Your task to perform on an android device: create a new album in the google photos Image 0: 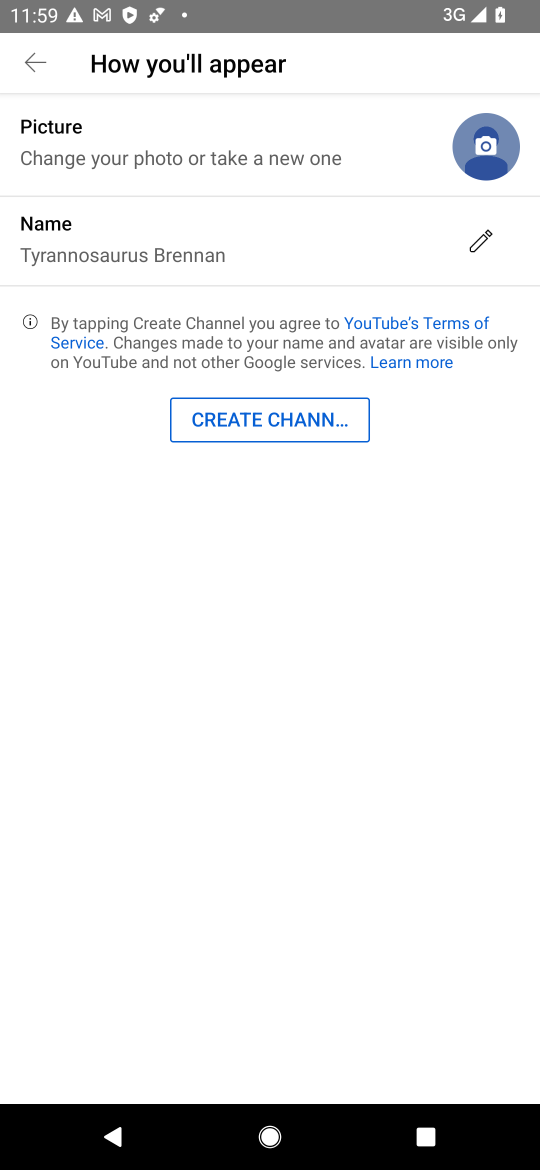
Step 0: press home button
Your task to perform on an android device: create a new album in the google photos Image 1: 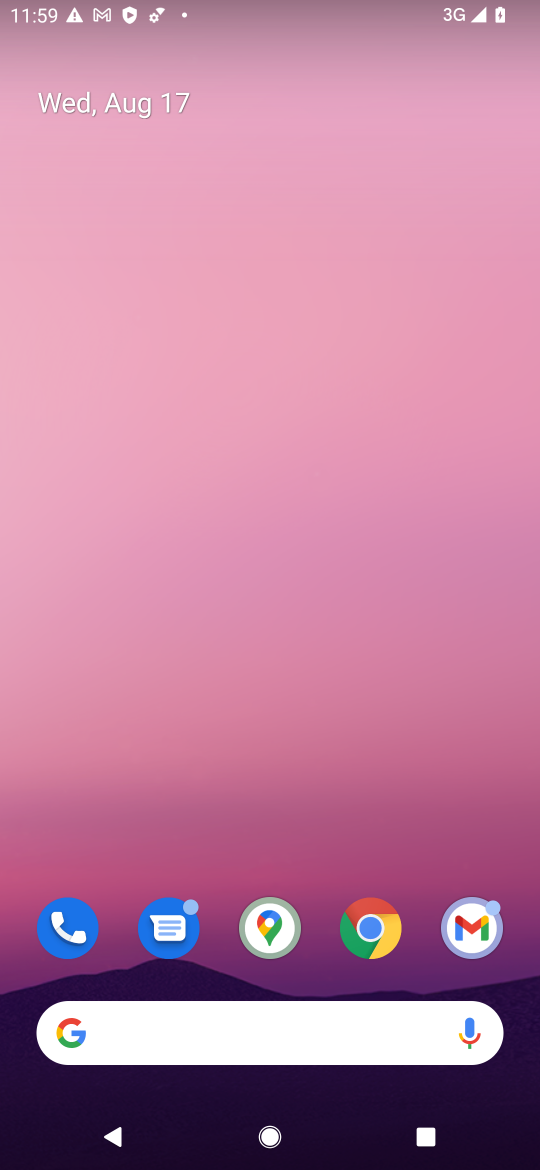
Step 1: drag from (332, 825) to (342, 229)
Your task to perform on an android device: create a new album in the google photos Image 2: 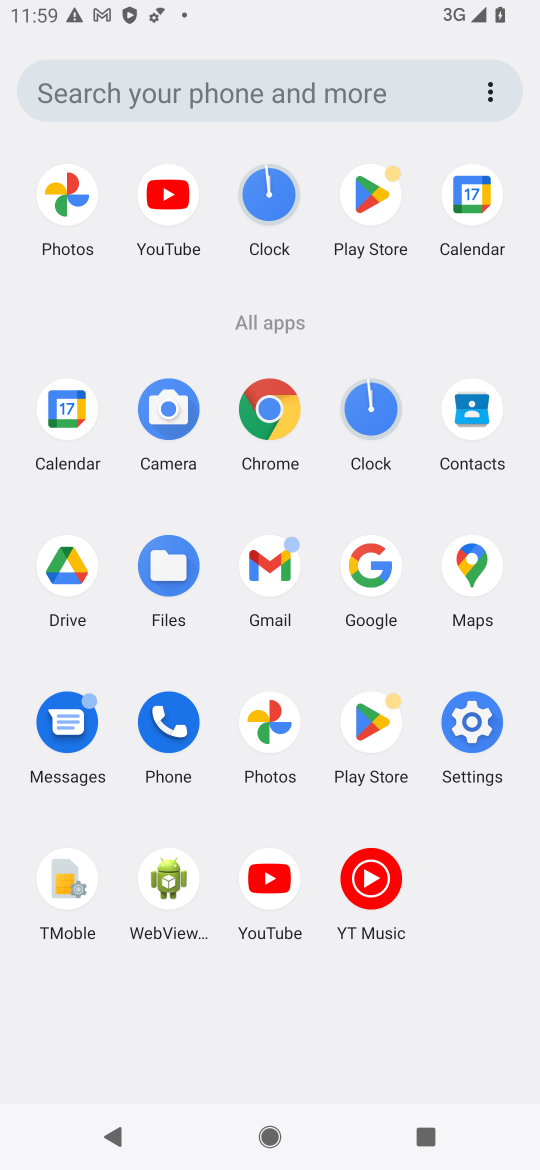
Step 2: click (100, 208)
Your task to perform on an android device: create a new album in the google photos Image 3: 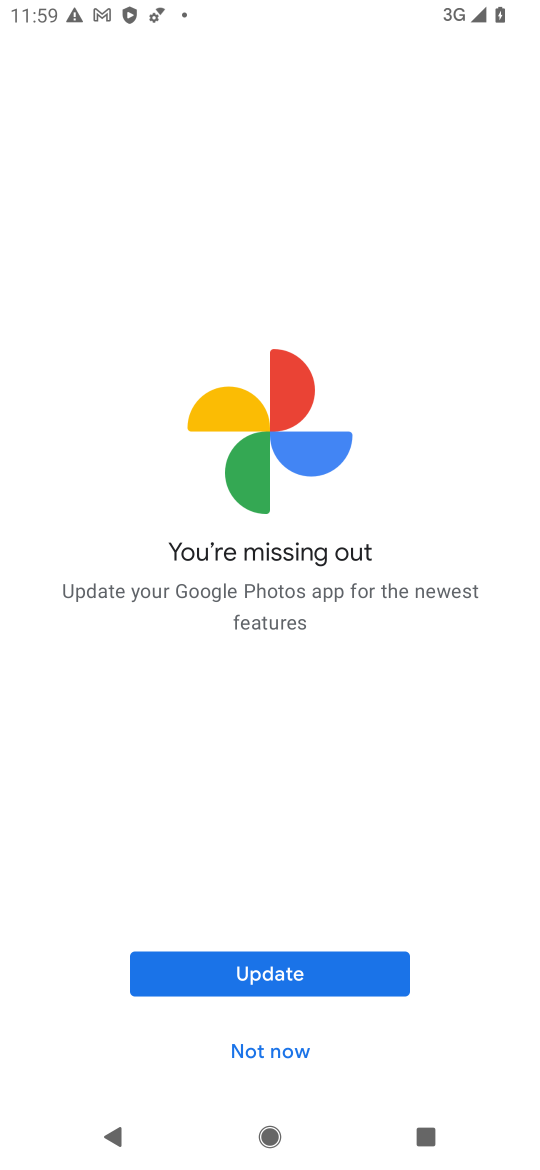
Step 3: click (158, 1044)
Your task to perform on an android device: create a new album in the google photos Image 4: 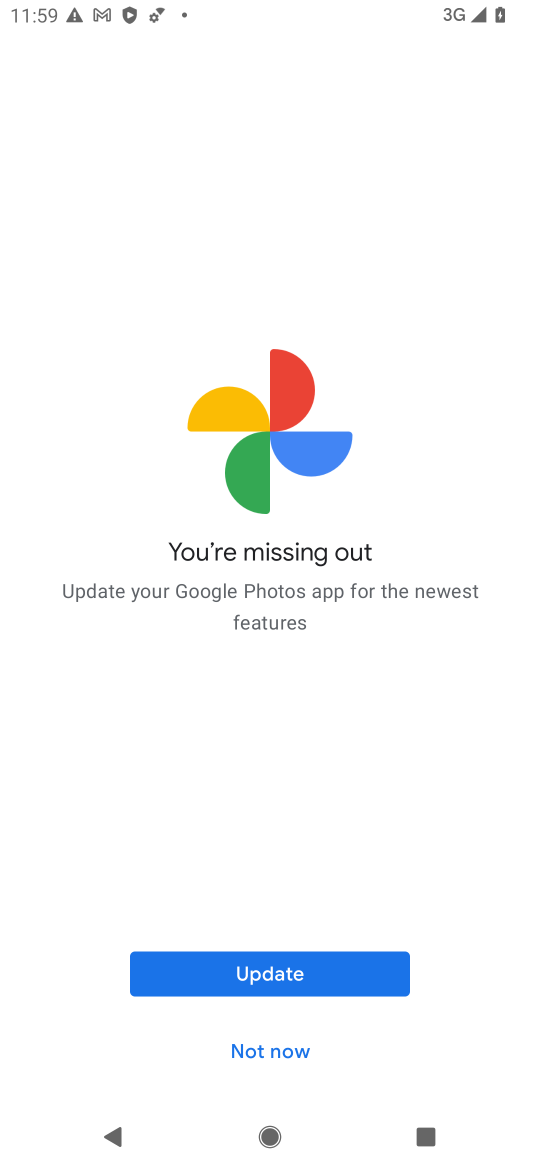
Step 4: click (292, 1049)
Your task to perform on an android device: create a new album in the google photos Image 5: 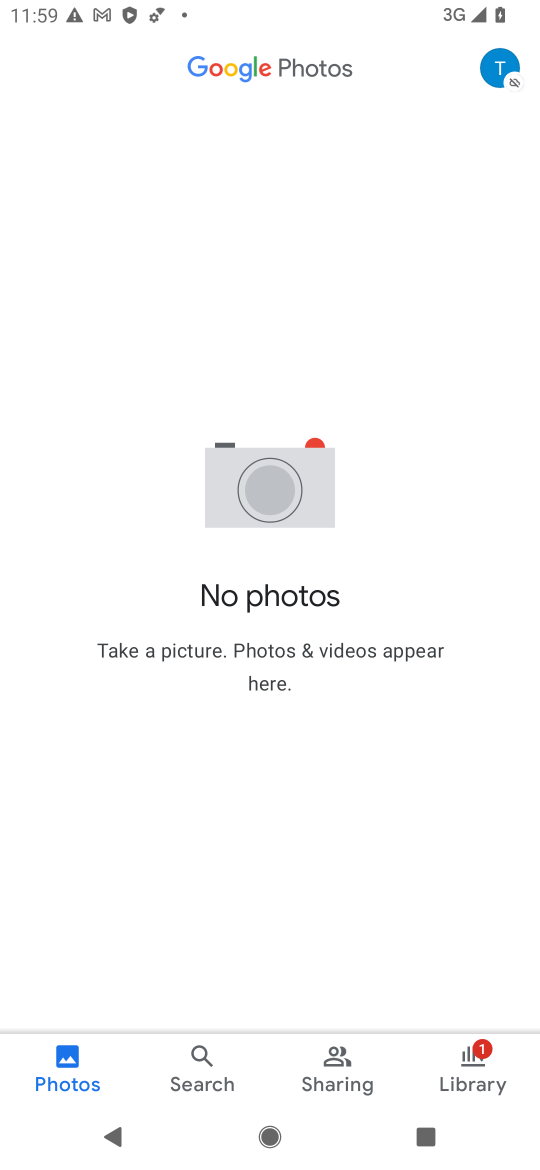
Step 5: click (507, 66)
Your task to perform on an android device: create a new album in the google photos Image 6: 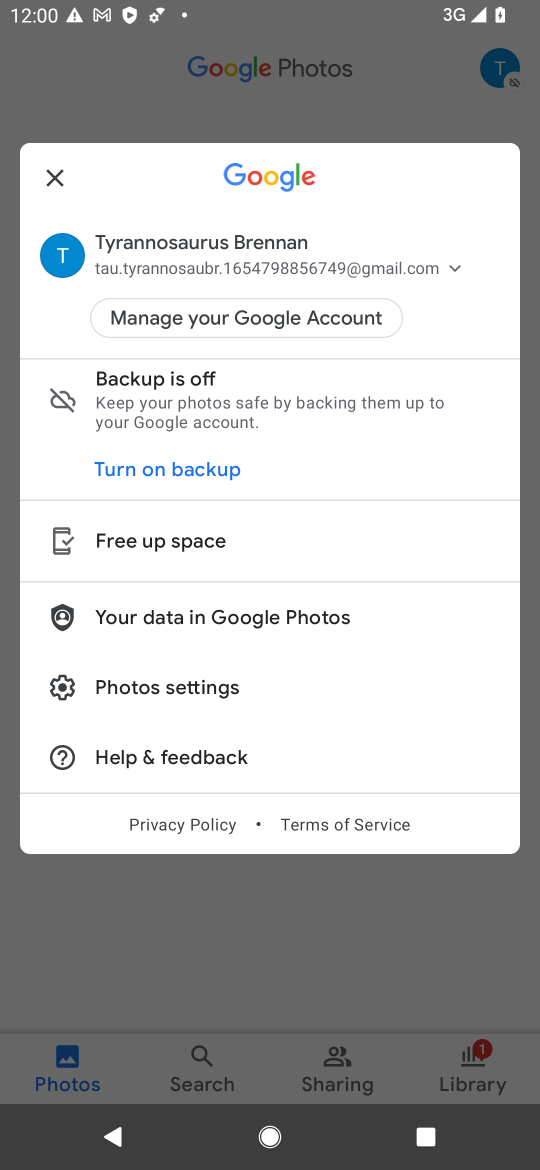
Step 6: click (48, 175)
Your task to perform on an android device: create a new album in the google photos Image 7: 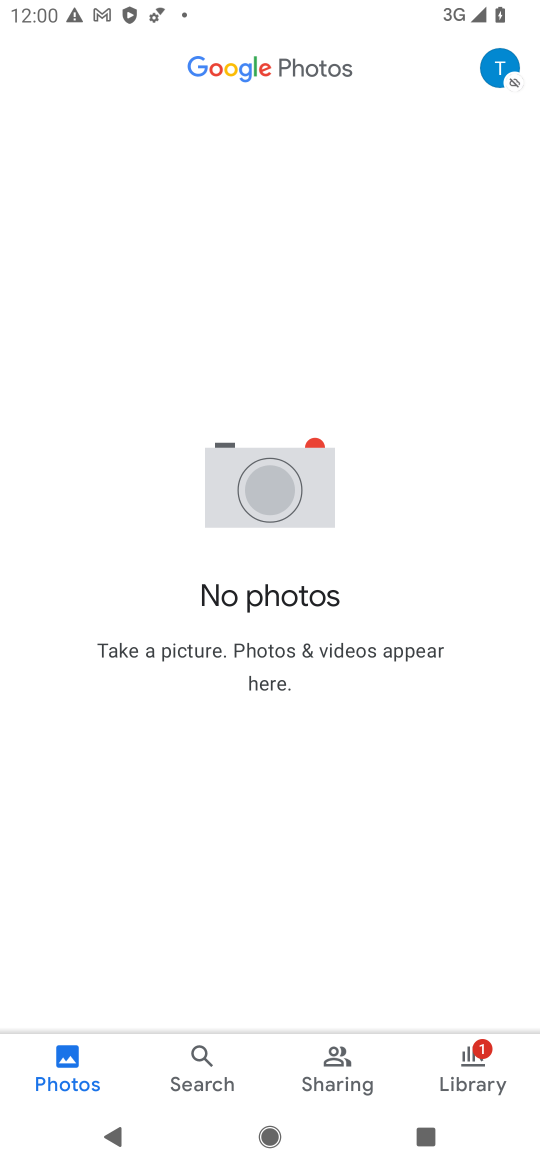
Step 7: click (467, 1055)
Your task to perform on an android device: create a new album in the google photos Image 8: 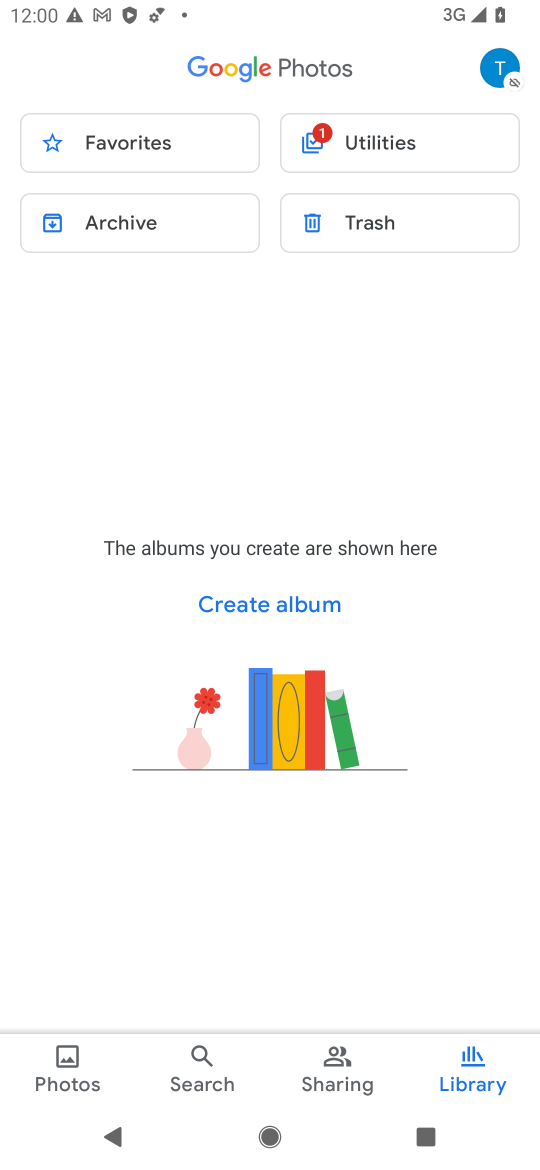
Step 8: click (495, 83)
Your task to perform on an android device: create a new album in the google photos Image 9: 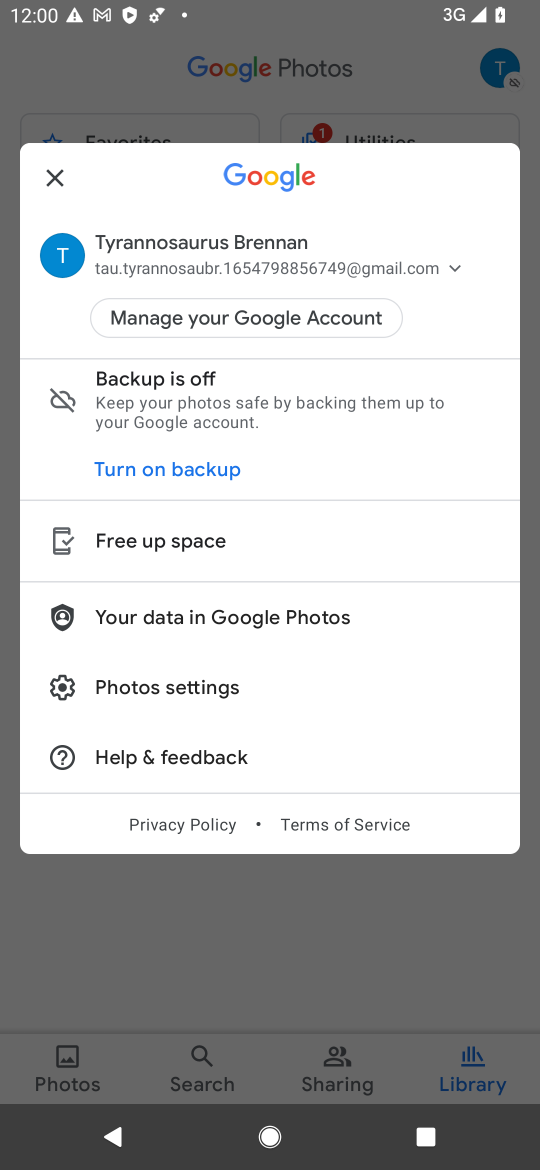
Step 9: click (35, 182)
Your task to perform on an android device: create a new album in the google photos Image 10: 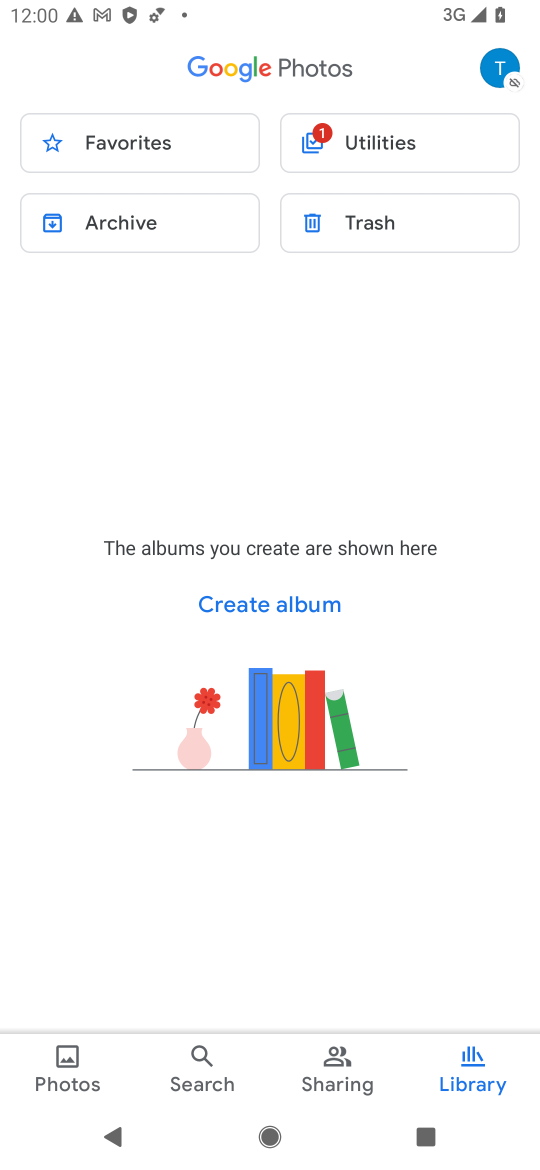
Step 10: click (235, 602)
Your task to perform on an android device: create a new album in the google photos Image 11: 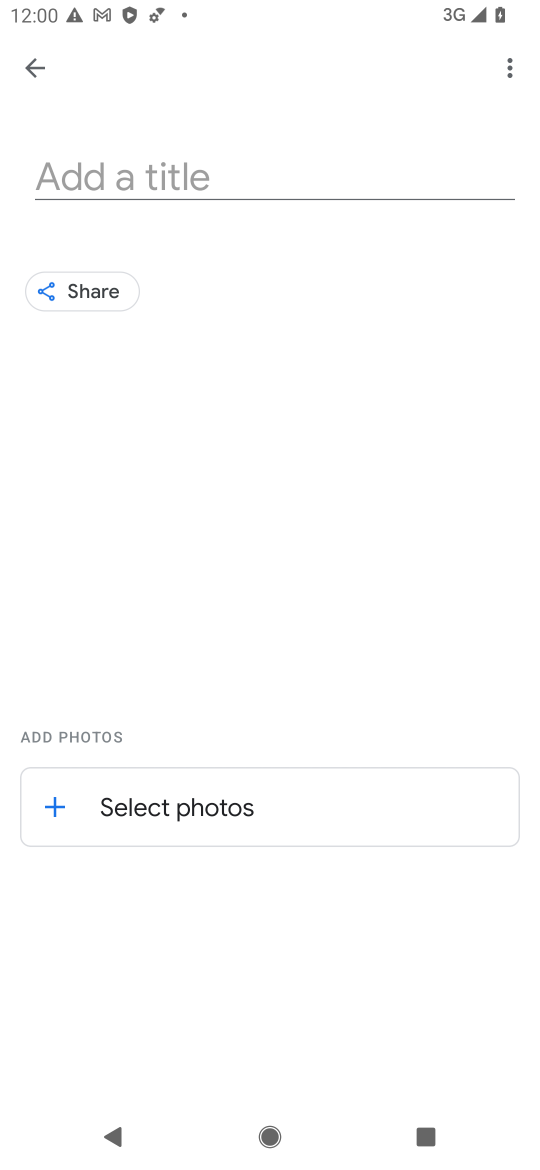
Step 11: click (204, 180)
Your task to perform on an android device: create a new album in the google photos Image 12: 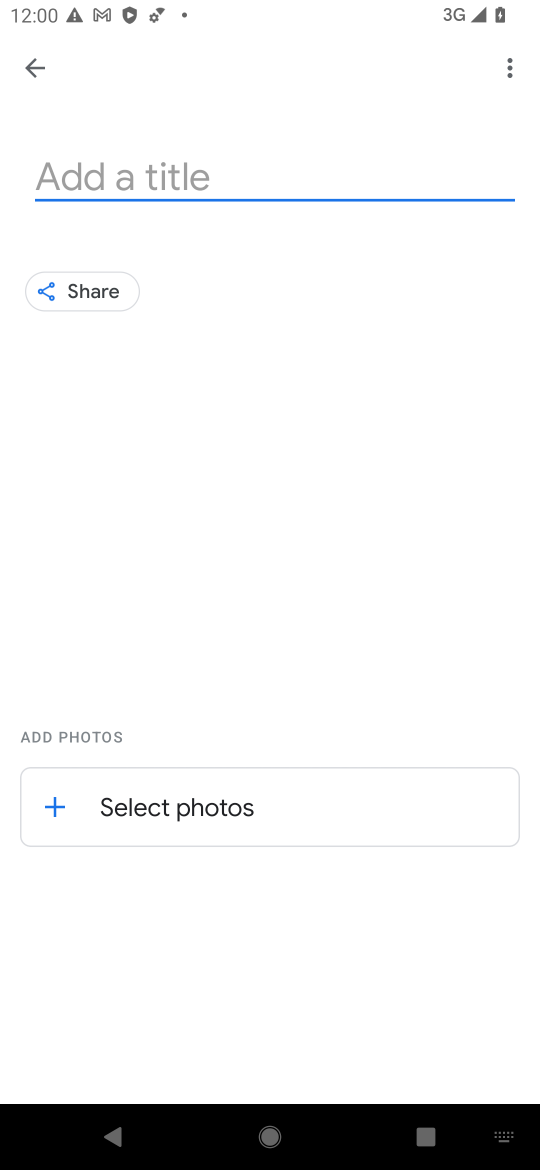
Step 12: type "vbng"
Your task to perform on an android device: create a new album in the google photos Image 13: 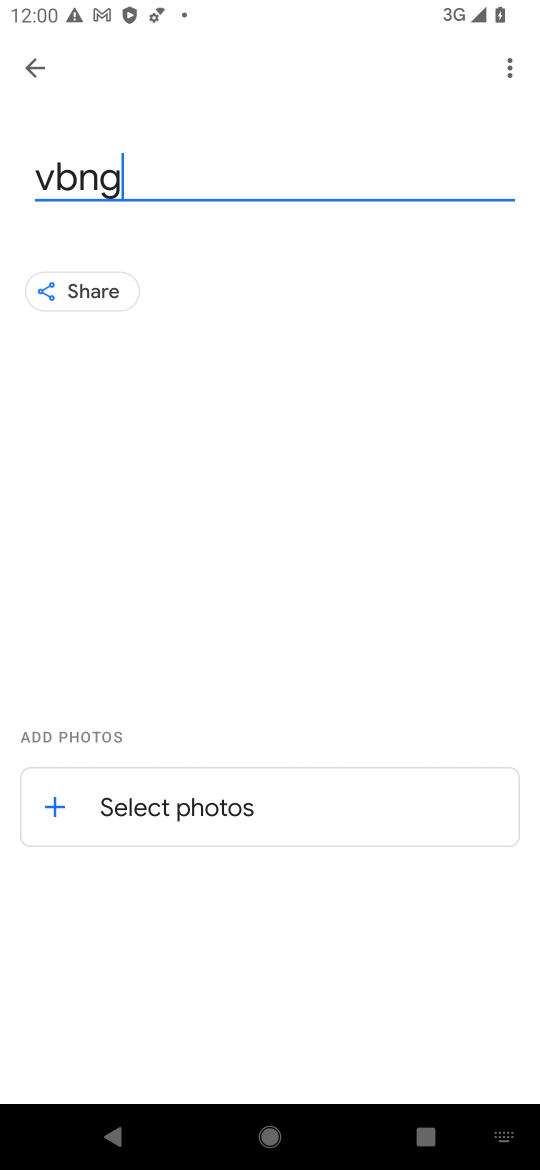
Step 13: type ""
Your task to perform on an android device: create a new album in the google photos Image 14: 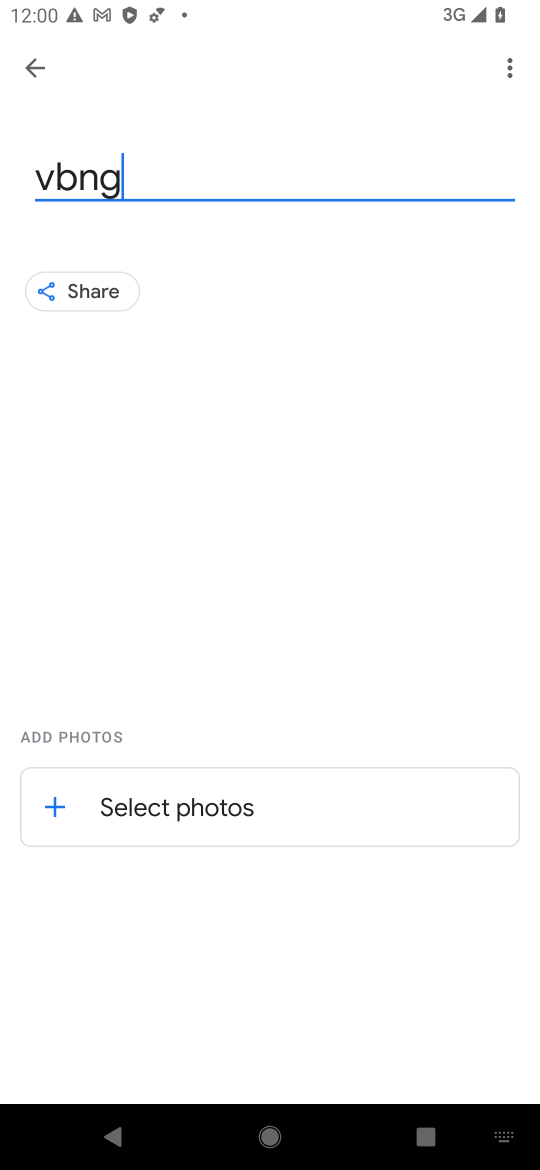
Step 14: click (74, 804)
Your task to perform on an android device: create a new album in the google photos Image 15: 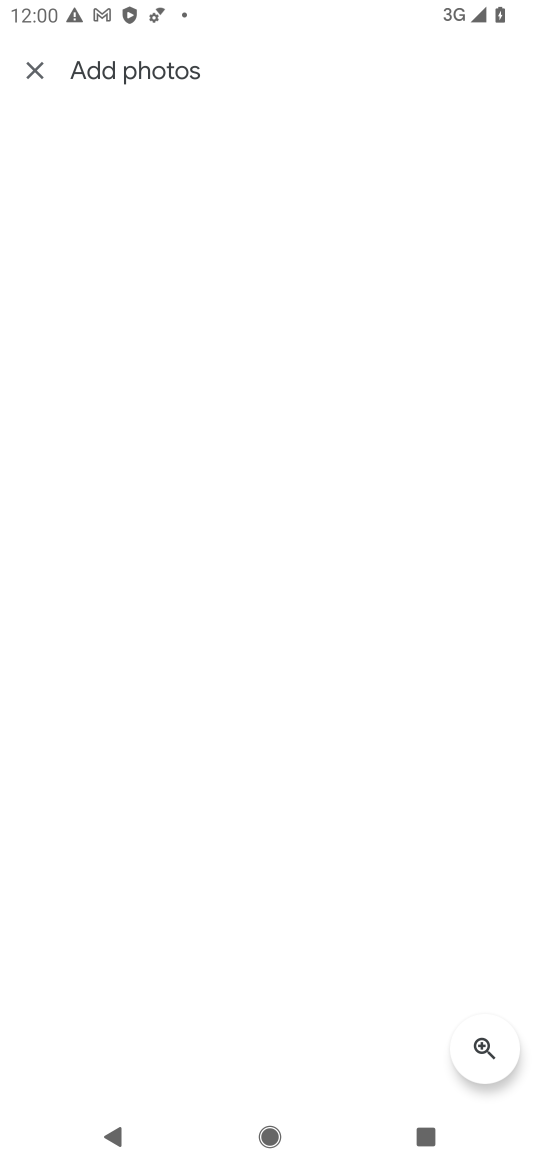
Step 15: task complete